Your task to perform on an android device: What's the weather? Image 0: 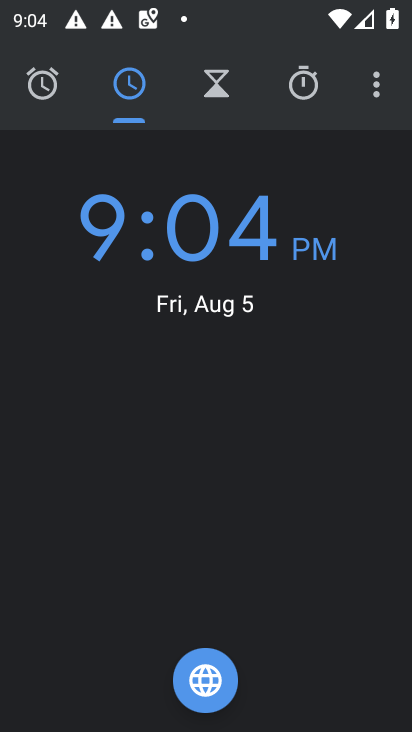
Step 0: press home button
Your task to perform on an android device: What's the weather? Image 1: 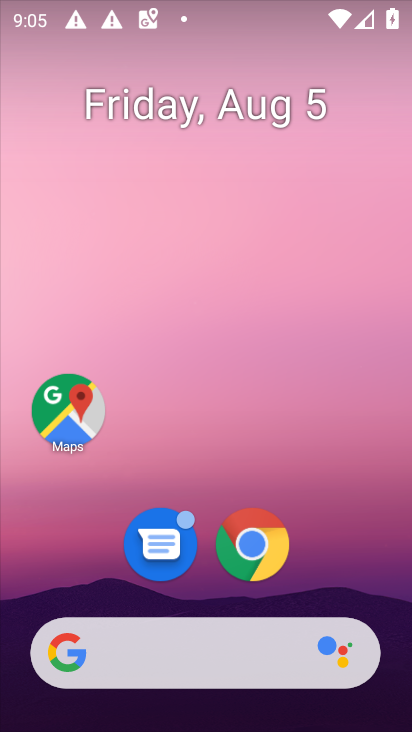
Step 1: drag from (249, 503) to (411, 594)
Your task to perform on an android device: What's the weather? Image 2: 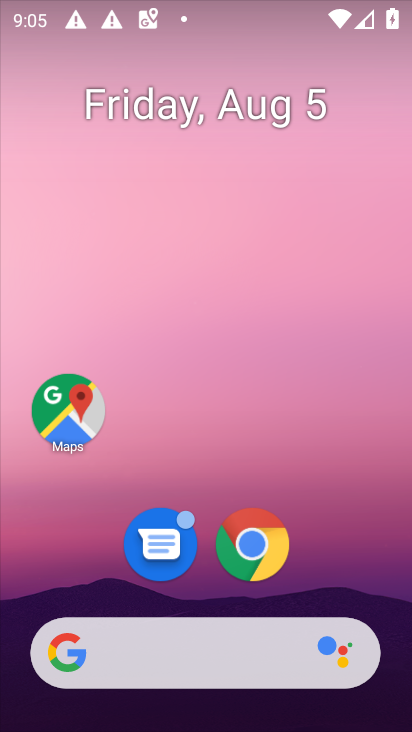
Step 2: drag from (254, 418) to (194, 14)
Your task to perform on an android device: What's the weather? Image 3: 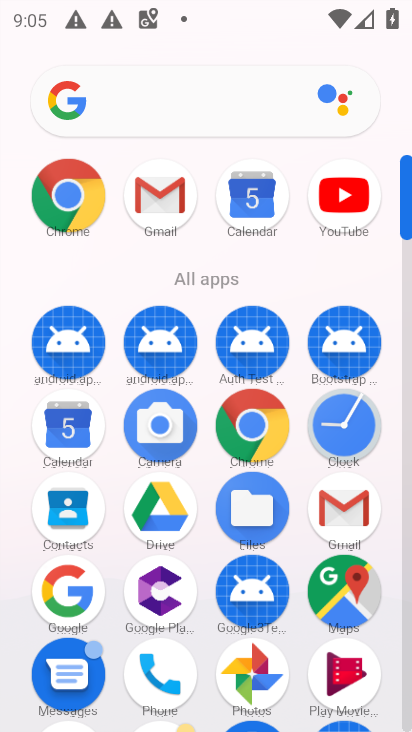
Step 3: click (64, 599)
Your task to perform on an android device: What's the weather? Image 4: 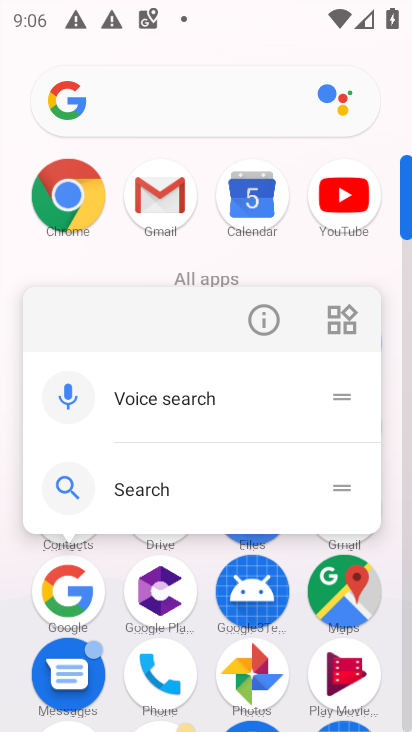
Step 4: click (64, 599)
Your task to perform on an android device: What's the weather? Image 5: 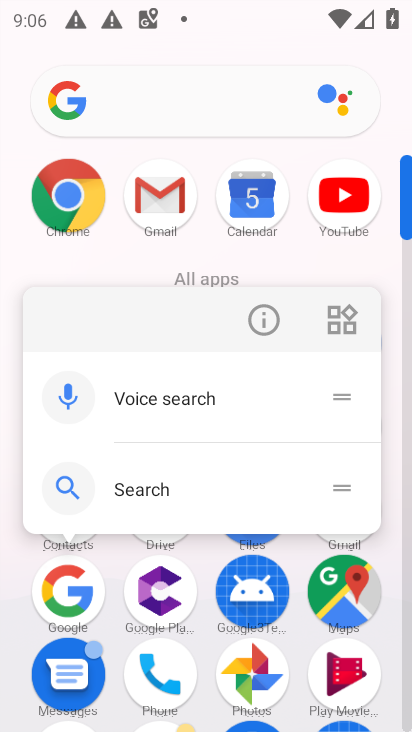
Step 5: click (64, 599)
Your task to perform on an android device: What's the weather? Image 6: 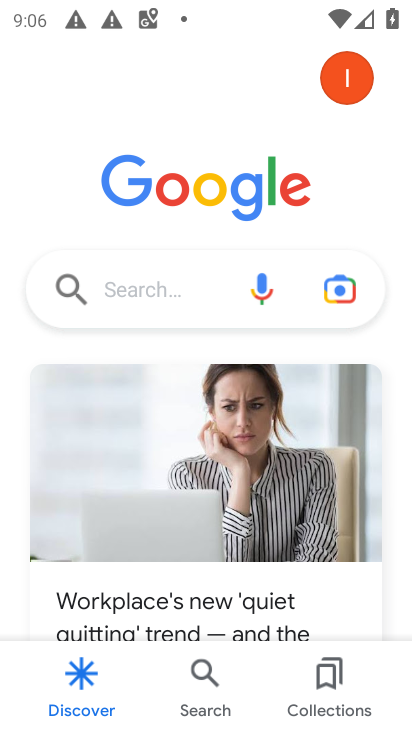
Step 6: click (118, 303)
Your task to perform on an android device: What's the weather? Image 7: 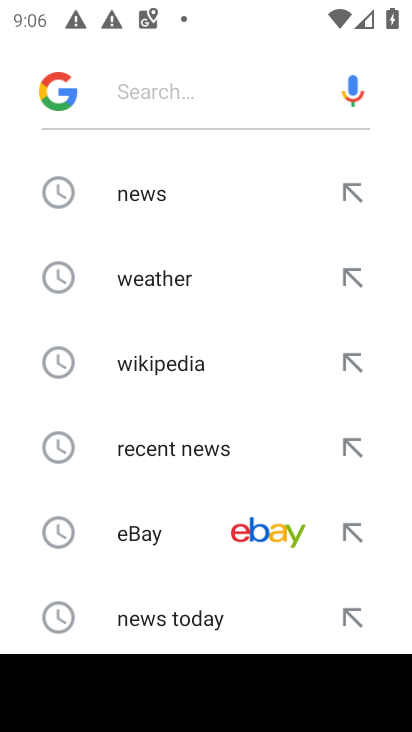
Step 7: click (118, 303)
Your task to perform on an android device: What's the weather? Image 8: 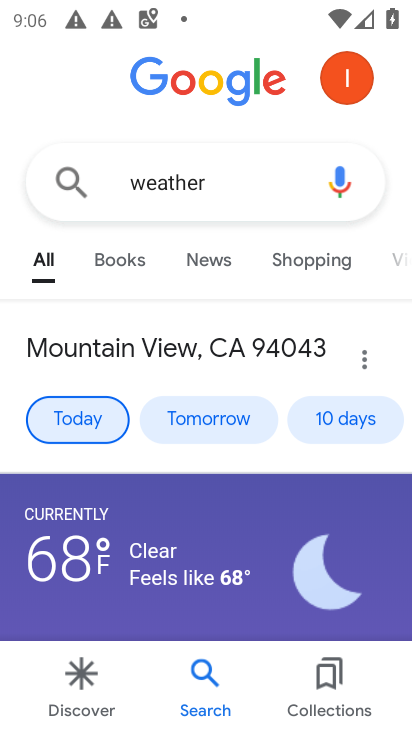
Step 8: task complete